Your task to perform on an android device: set default search engine in the chrome app Image 0: 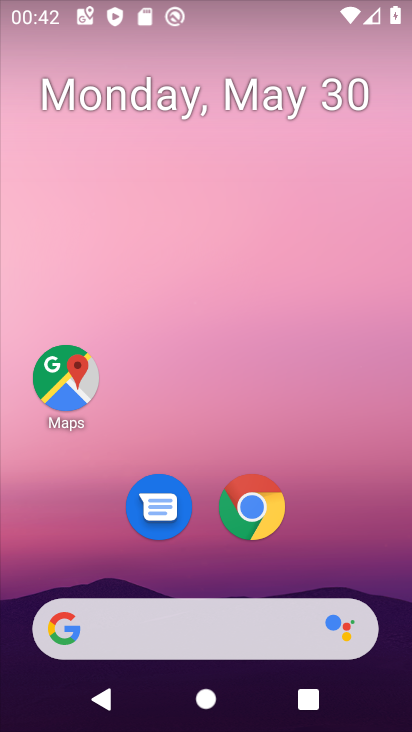
Step 0: click (245, 520)
Your task to perform on an android device: set default search engine in the chrome app Image 1: 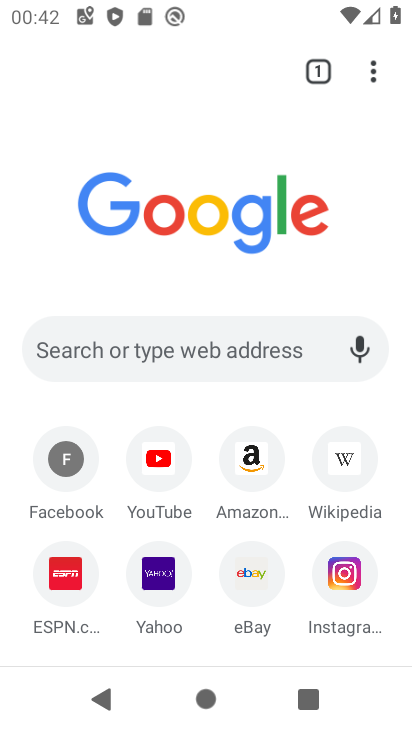
Step 1: click (373, 78)
Your task to perform on an android device: set default search engine in the chrome app Image 2: 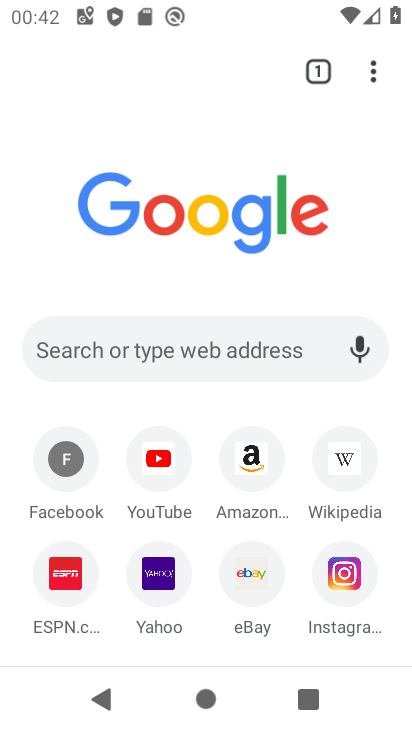
Step 2: click (373, 77)
Your task to perform on an android device: set default search engine in the chrome app Image 3: 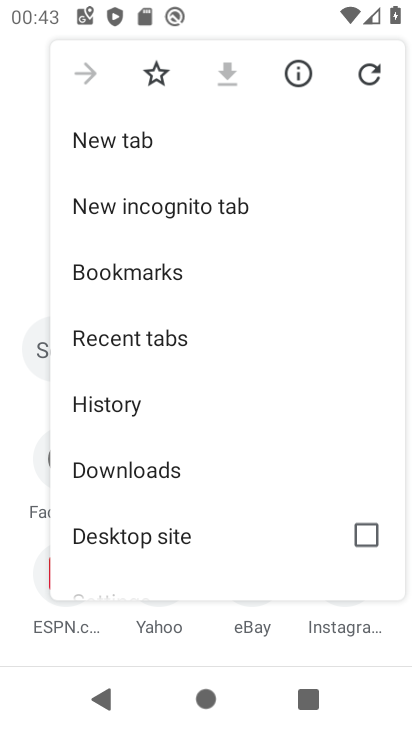
Step 3: drag from (199, 501) to (192, 227)
Your task to perform on an android device: set default search engine in the chrome app Image 4: 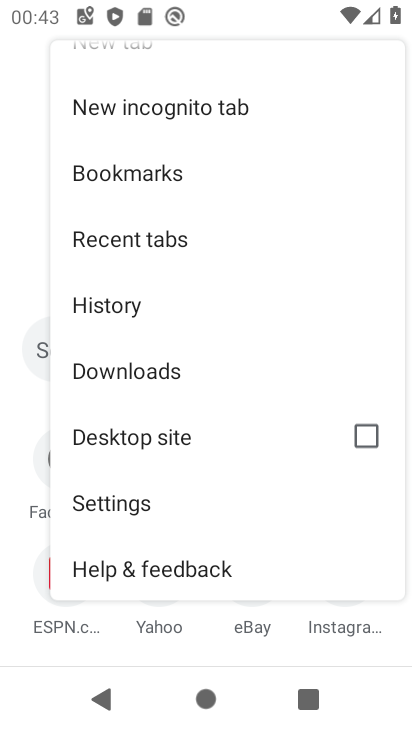
Step 4: click (141, 497)
Your task to perform on an android device: set default search engine in the chrome app Image 5: 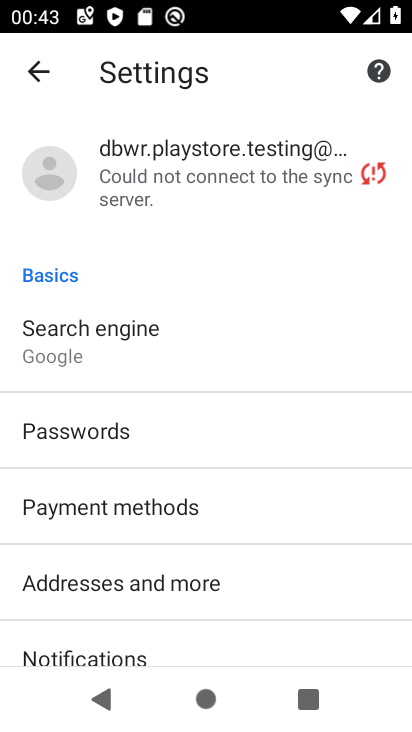
Step 5: click (140, 348)
Your task to perform on an android device: set default search engine in the chrome app Image 6: 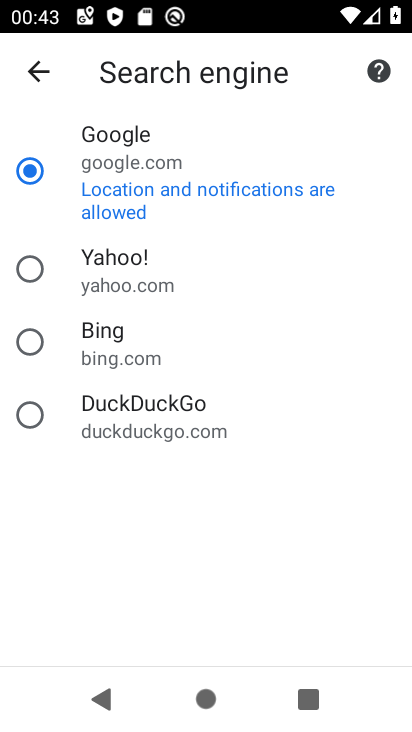
Step 6: click (106, 271)
Your task to perform on an android device: set default search engine in the chrome app Image 7: 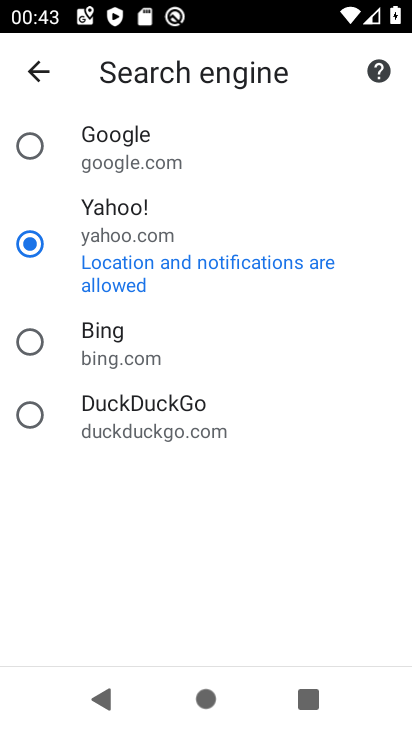
Step 7: task complete